Your task to perform on an android device: Open the calendar and show me this week's events Image 0: 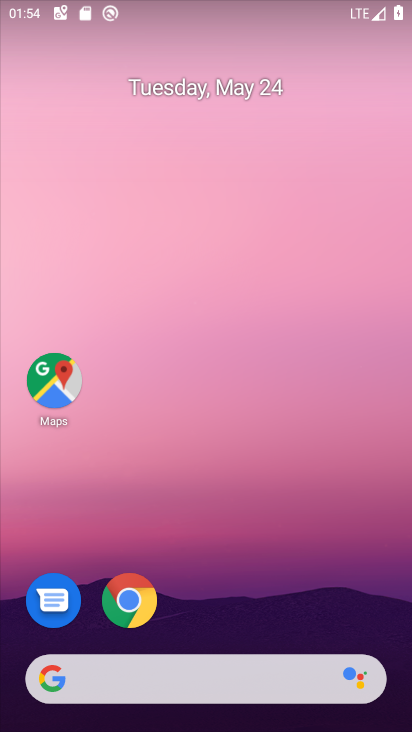
Step 0: drag from (252, 516) to (187, 24)
Your task to perform on an android device: Open the calendar and show me this week's events Image 1: 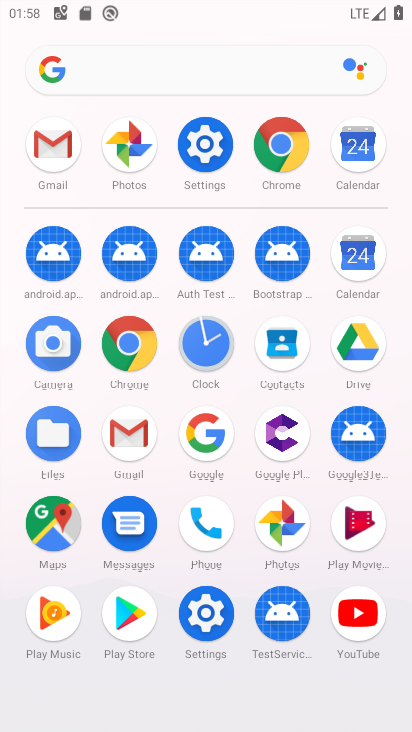
Step 1: click (369, 127)
Your task to perform on an android device: Open the calendar and show me this week's events Image 2: 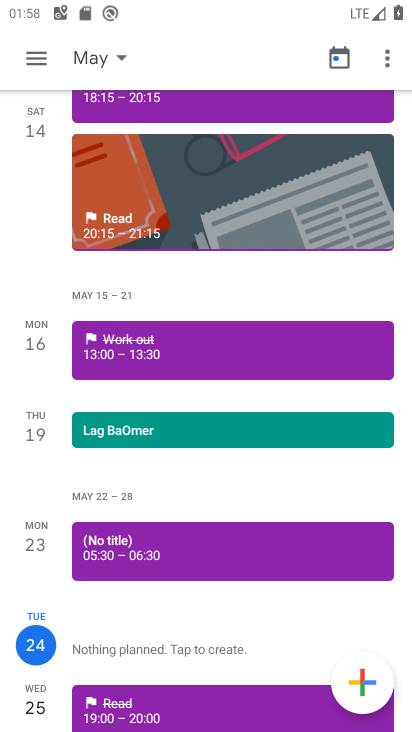
Step 2: click (23, 61)
Your task to perform on an android device: Open the calendar and show me this week's events Image 3: 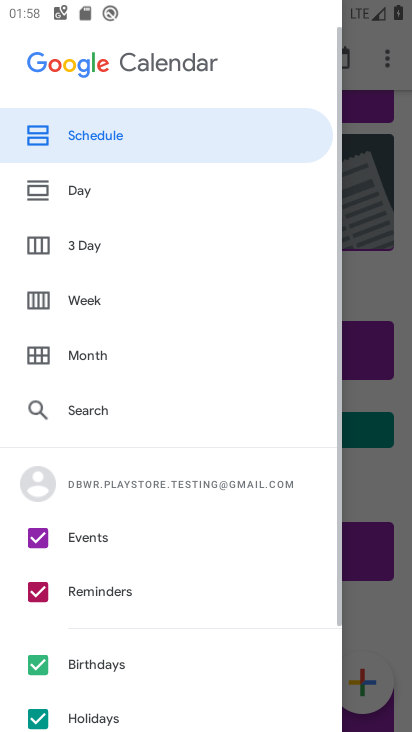
Step 3: click (88, 289)
Your task to perform on an android device: Open the calendar and show me this week's events Image 4: 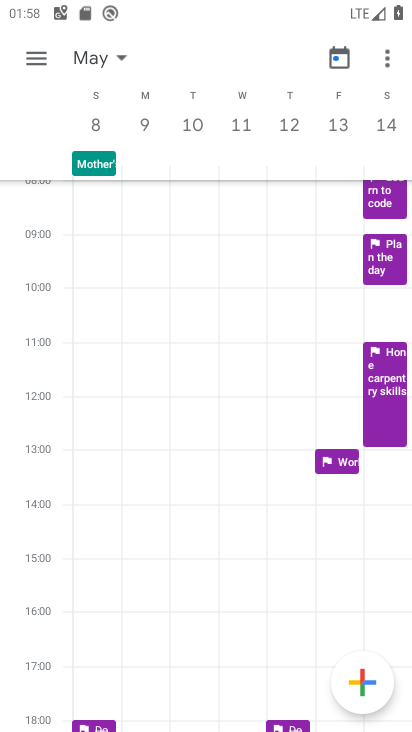
Step 4: task complete